Your task to perform on an android device: turn off notifications in google photos Image 0: 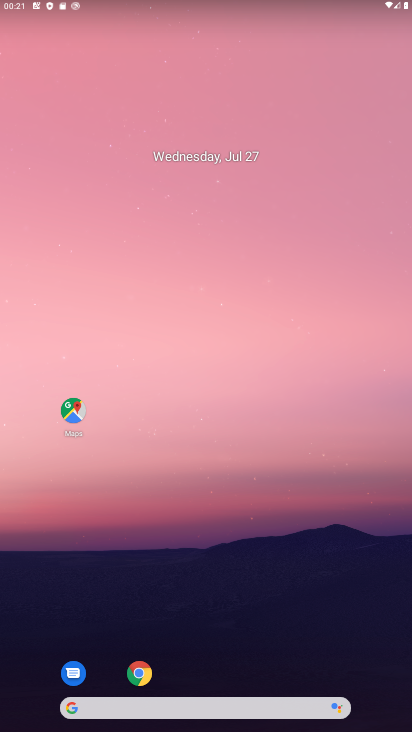
Step 0: drag from (317, 641) to (280, 21)
Your task to perform on an android device: turn off notifications in google photos Image 1: 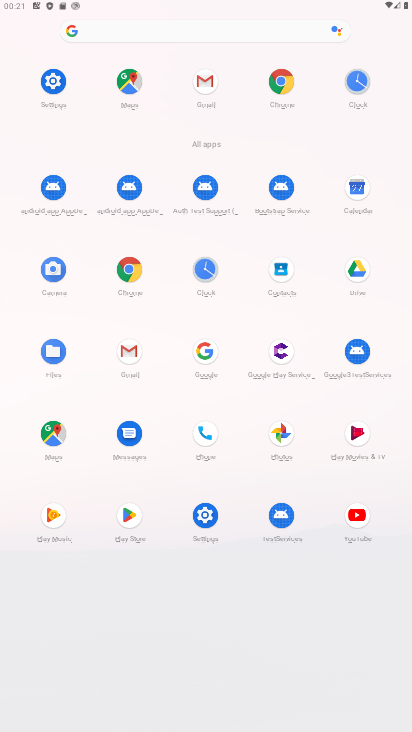
Step 1: click (287, 434)
Your task to perform on an android device: turn off notifications in google photos Image 2: 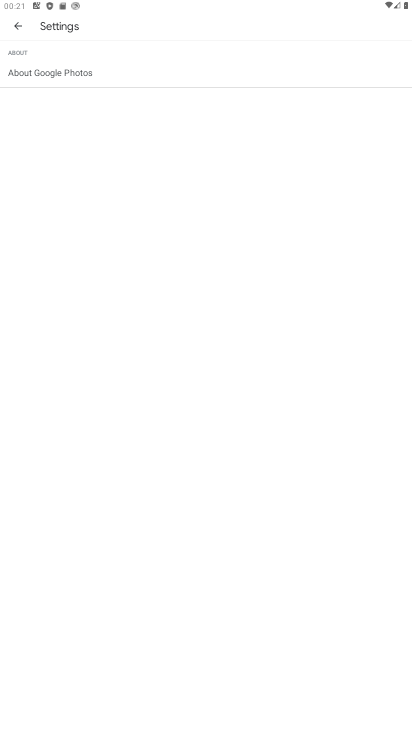
Step 2: click (23, 29)
Your task to perform on an android device: turn off notifications in google photos Image 3: 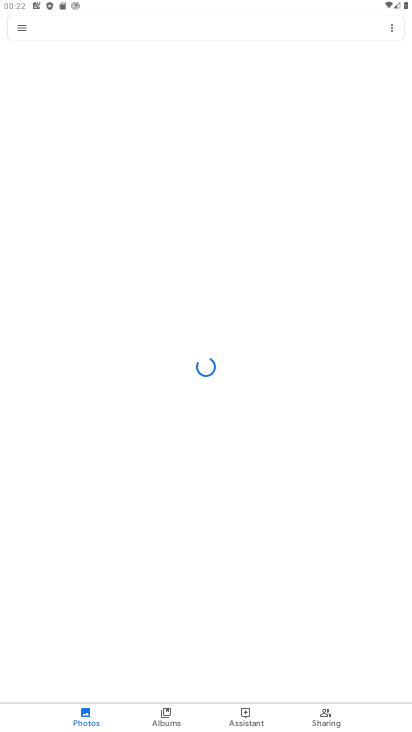
Step 3: click (23, 29)
Your task to perform on an android device: turn off notifications in google photos Image 4: 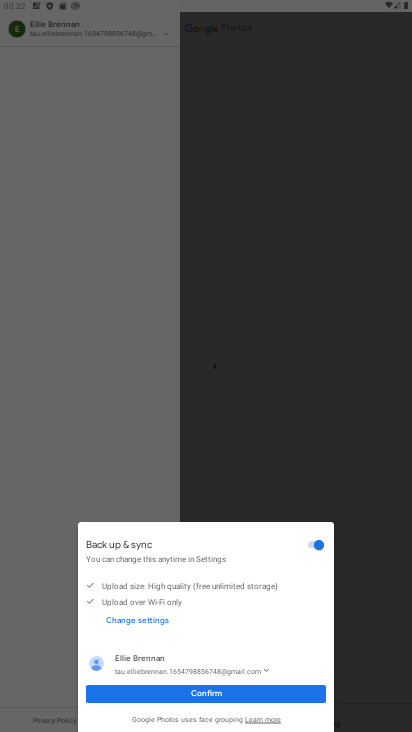
Step 4: click (143, 690)
Your task to perform on an android device: turn off notifications in google photos Image 5: 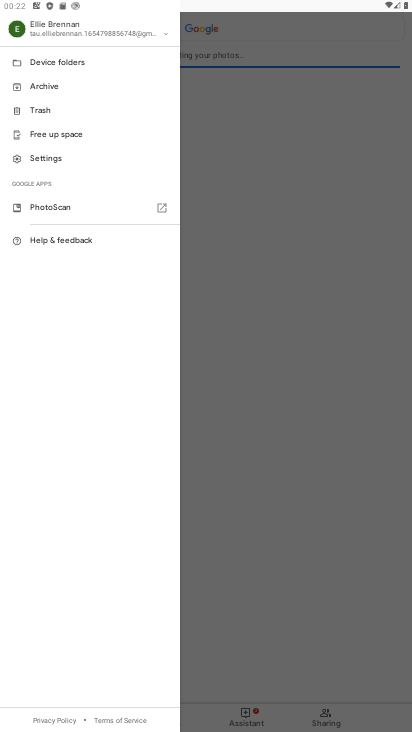
Step 5: click (64, 158)
Your task to perform on an android device: turn off notifications in google photos Image 6: 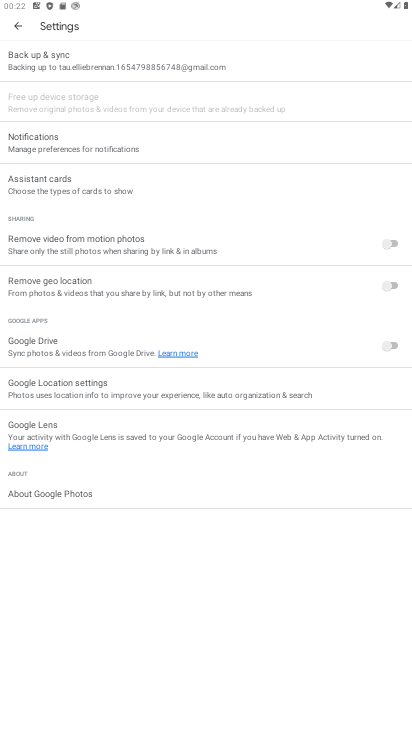
Step 6: click (86, 146)
Your task to perform on an android device: turn off notifications in google photos Image 7: 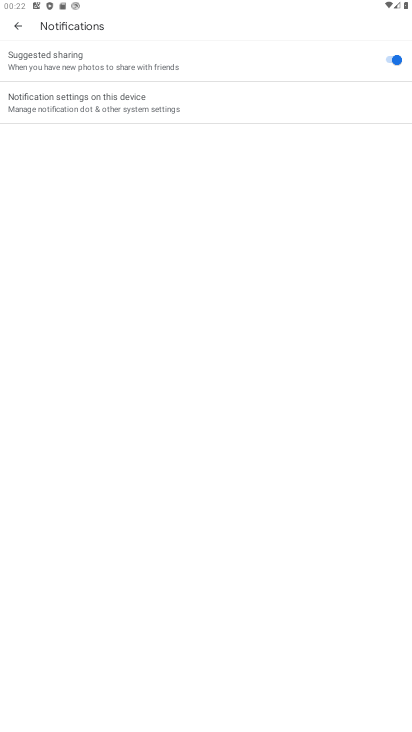
Step 7: click (121, 115)
Your task to perform on an android device: turn off notifications in google photos Image 8: 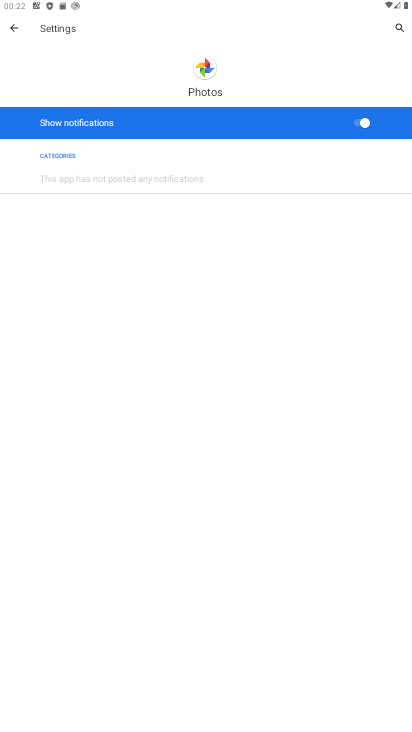
Step 8: click (365, 118)
Your task to perform on an android device: turn off notifications in google photos Image 9: 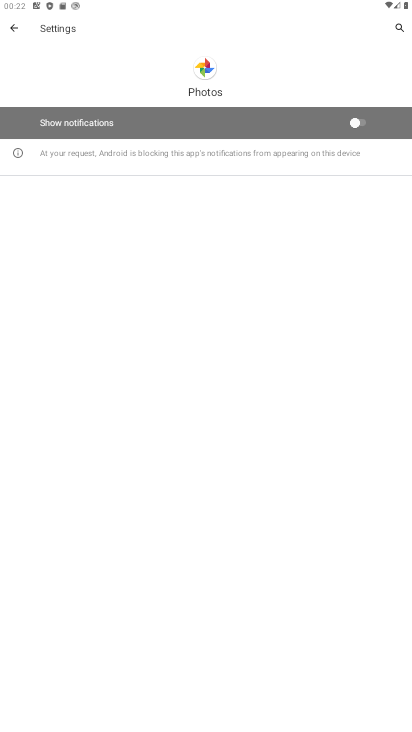
Step 9: task complete